Your task to perform on an android device: Go to location settings Image 0: 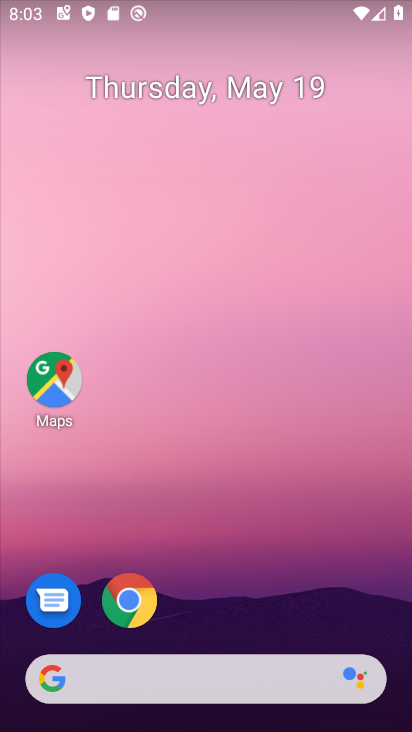
Step 0: drag from (256, 637) to (210, 2)
Your task to perform on an android device: Go to location settings Image 1: 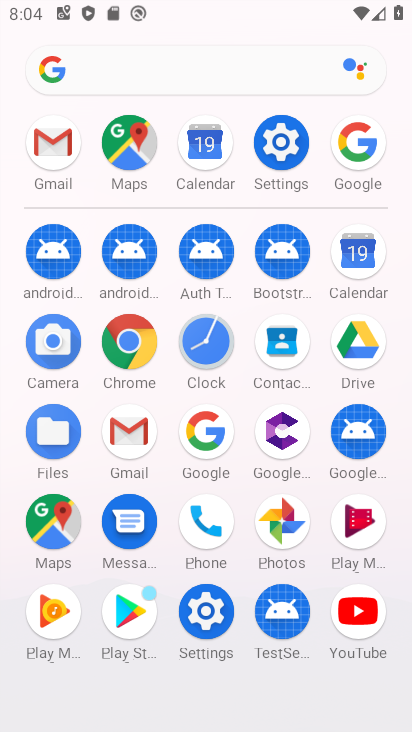
Step 1: click (279, 146)
Your task to perform on an android device: Go to location settings Image 2: 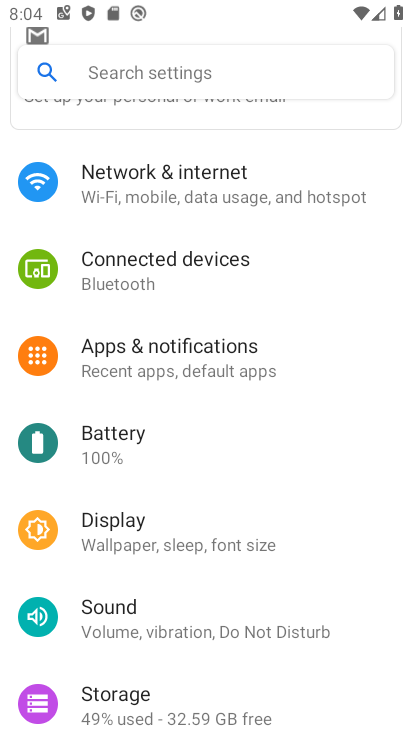
Step 2: drag from (302, 420) to (298, 94)
Your task to perform on an android device: Go to location settings Image 3: 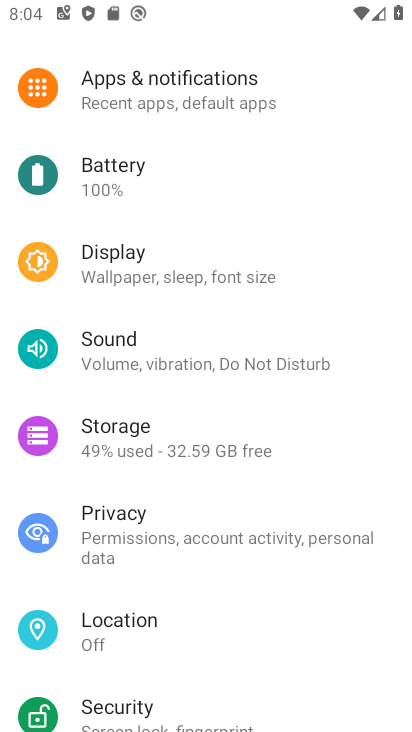
Step 3: click (92, 617)
Your task to perform on an android device: Go to location settings Image 4: 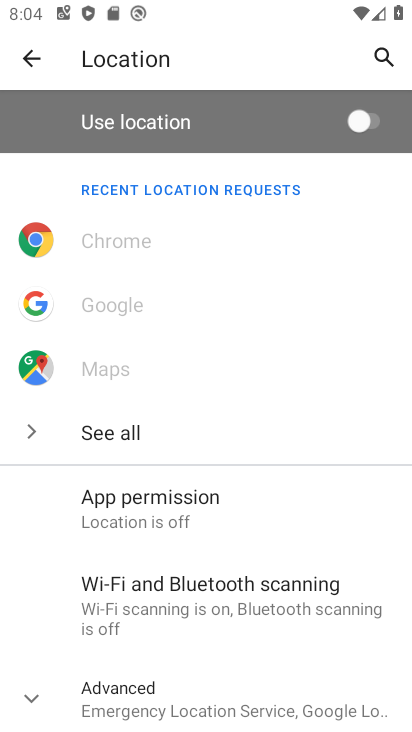
Step 4: task complete